Your task to perform on an android device: Is it going to rain this weekend? Image 0: 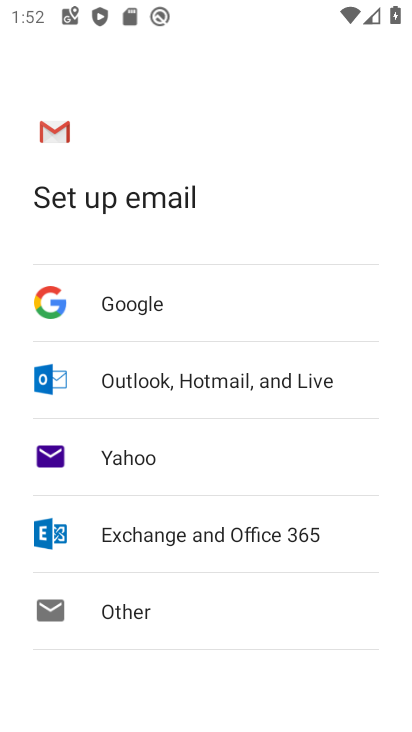
Step 0: press home button
Your task to perform on an android device: Is it going to rain this weekend? Image 1: 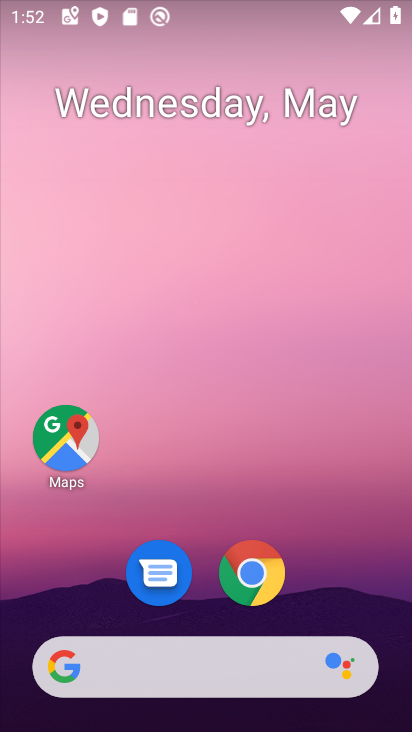
Step 1: click (96, 669)
Your task to perform on an android device: Is it going to rain this weekend? Image 2: 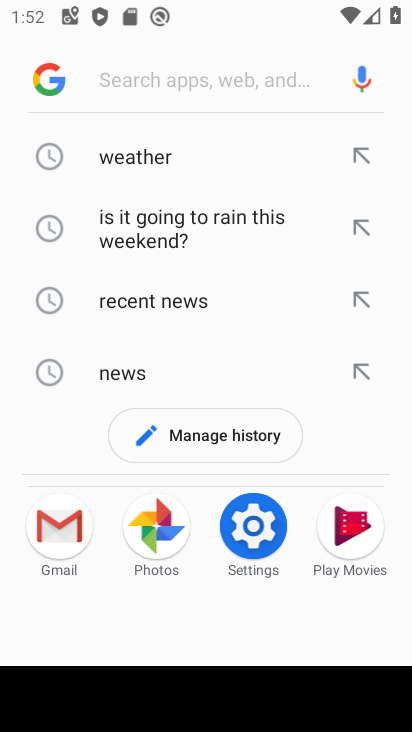
Step 2: type "is it going to rain this weekend"
Your task to perform on an android device: Is it going to rain this weekend? Image 3: 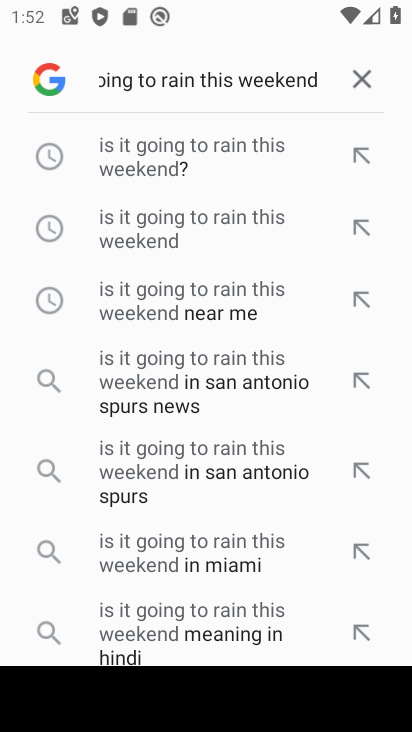
Step 3: click (155, 151)
Your task to perform on an android device: Is it going to rain this weekend? Image 4: 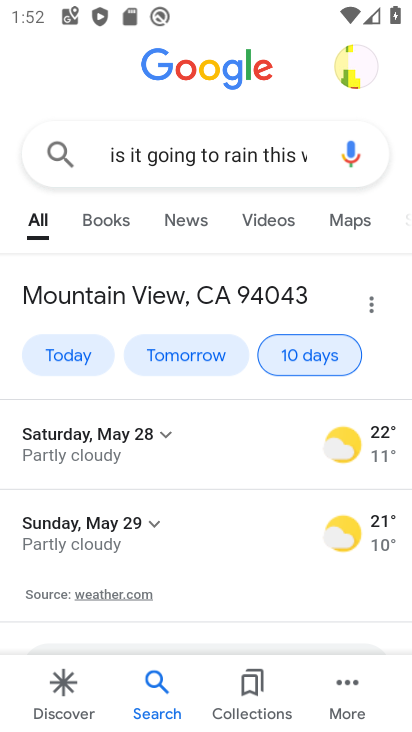
Step 4: task complete